Your task to perform on an android device: Open the map Image 0: 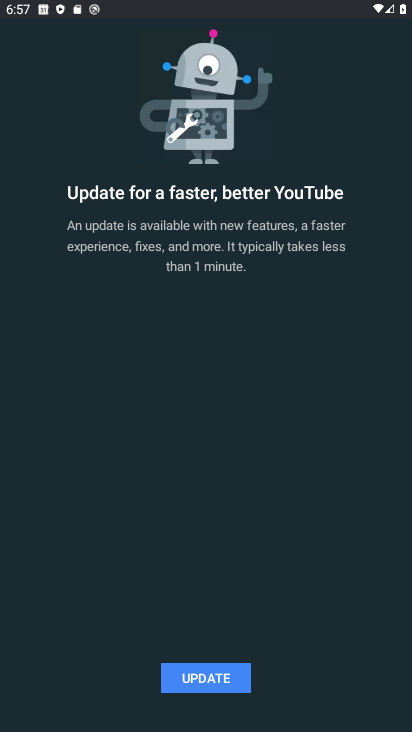
Step 0: press back button
Your task to perform on an android device: Open the map Image 1: 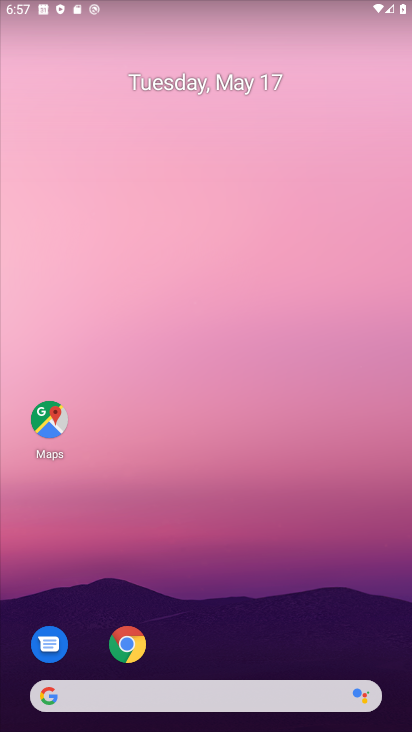
Step 1: drag from (348, 611) to (322, 77)
Your task to perform on an android device: Open the map Image 2: 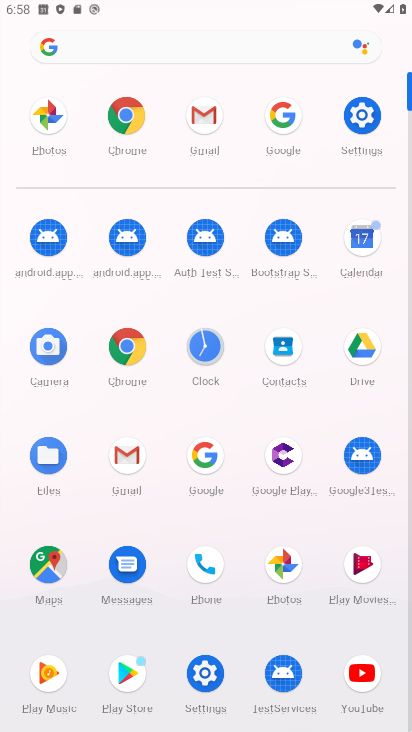
Step 2: click (53, 565)
Your task to perform on an android device: Open the map Image 3: 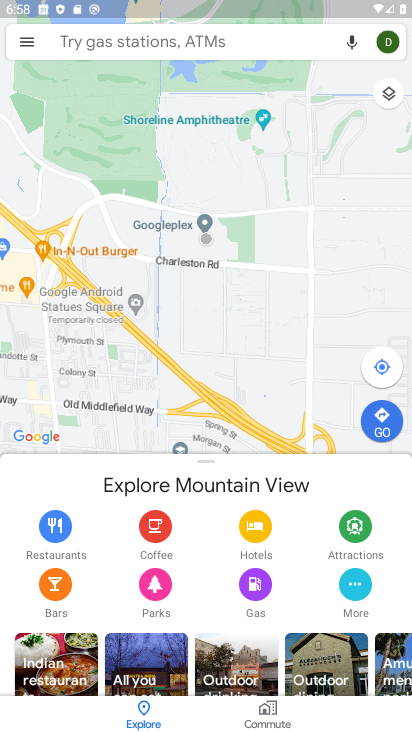
Step 3: task complete